Your task to perform on an android device: Go to ESPN.com Image 0: 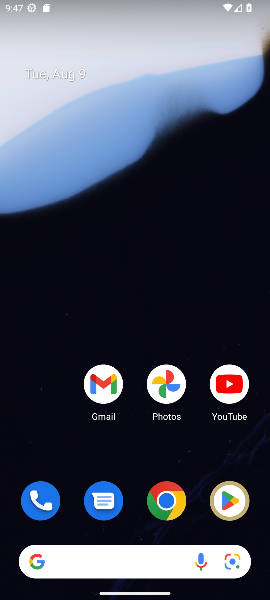
Step 0: click (170, 505)
Your task to perform on an android device: Go to ESPN.com Image 1: 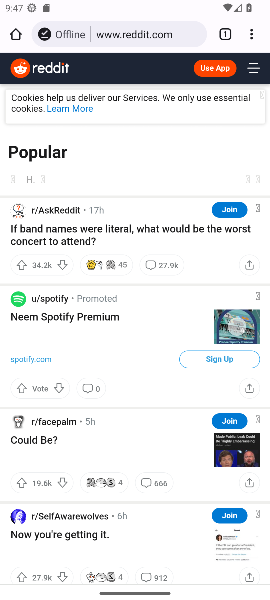
Step 1: click (112, 28)
Your task to perform on an android device: Go to ESPN.com Image 2: 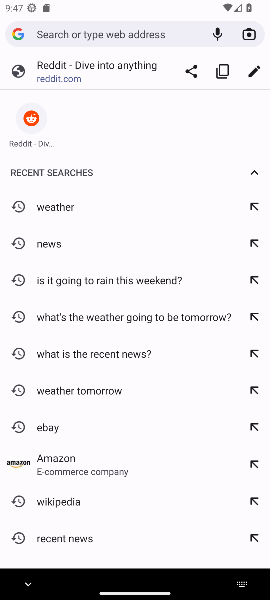
Step 2: type "www.espn.com"
Your task to perform on an android device: Go to ESPN.com Image 3: 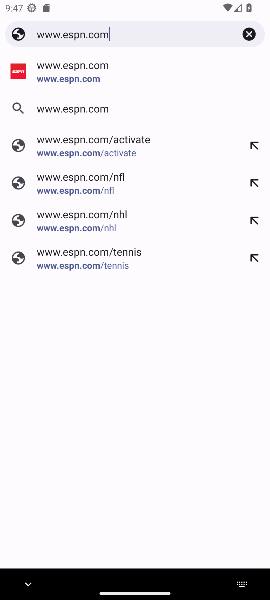
Step 3: click (56, 61)
Your task to perform on an android device: Go to ESPN.com Image 4: 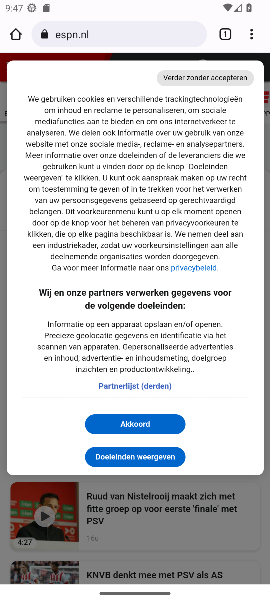
Step 4: task complete